Your task to perform on an android device: Open location settings Image 0: 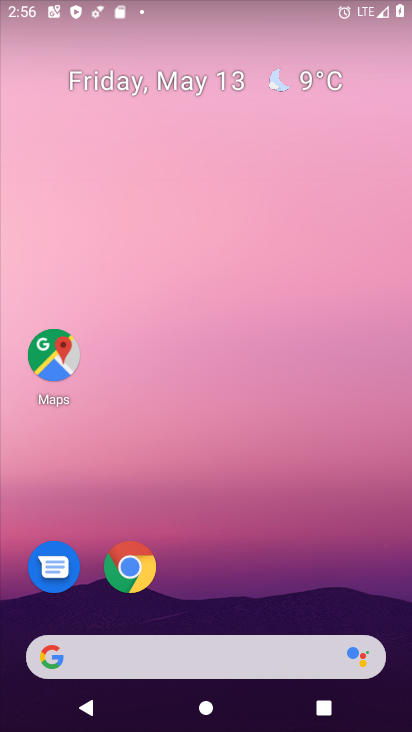
Step 0: drag from (253, 615) to (266, 0)
Your task to perform on an android device: Open location settings Image 1: 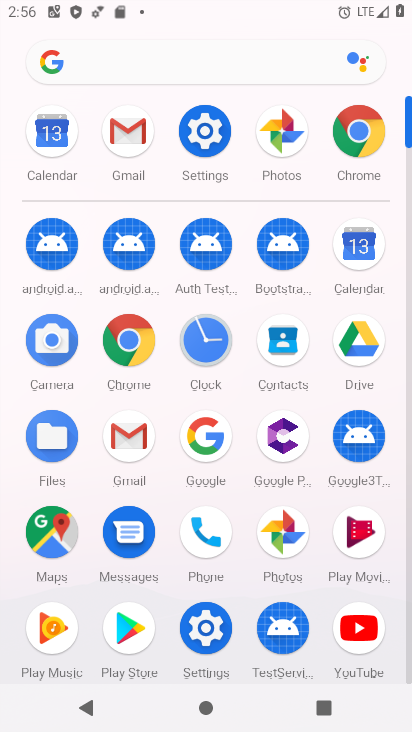
Step 1: click (198, 643)
Your task to perform on an android device: Open location settings Image 2: 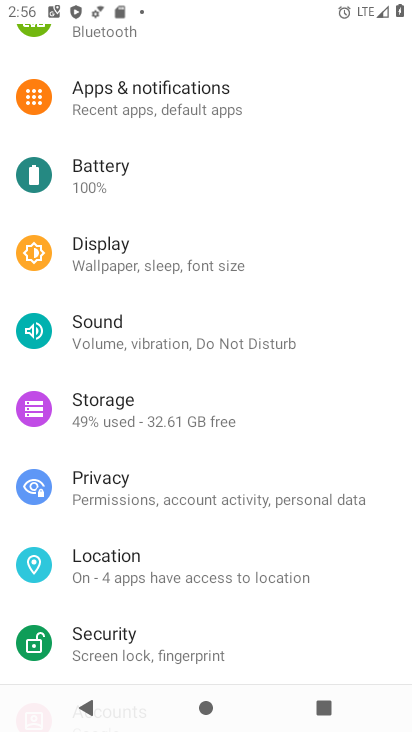
Step 2: click (121, 550)
Your task to perform on an android device: Open location settings Image 3: 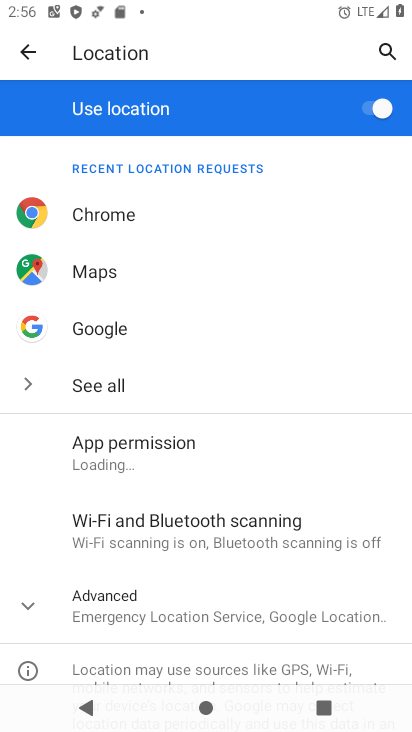
Step 3: task complete